Your task to perform on an android device: see tabs open on other devices in the chrome app Image 0: 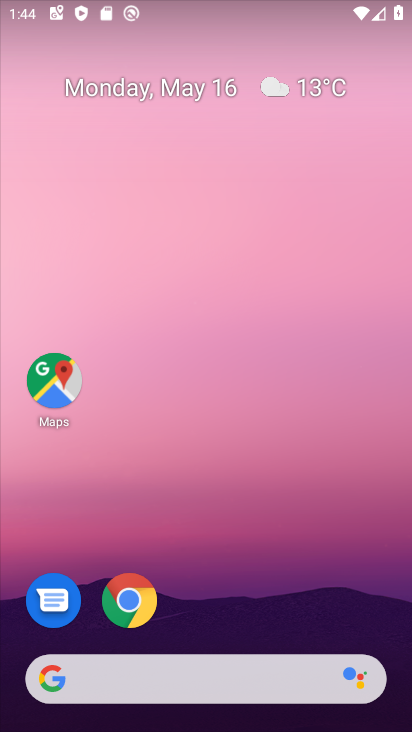
Step 0: click (148, 616)
Your task to perform on an android device: see tabs open on other devices in the chrome app Image 1: 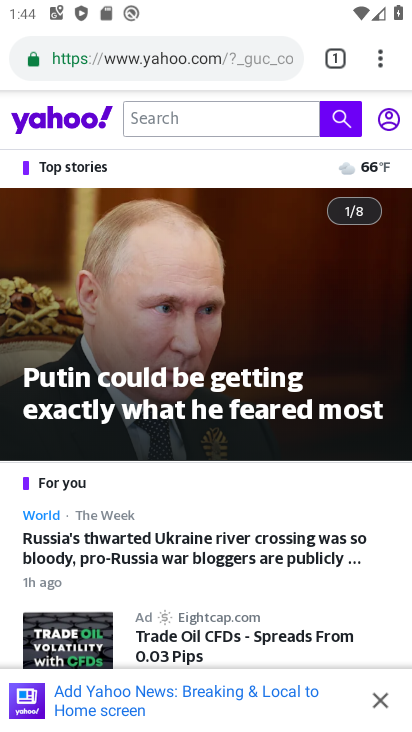
Step 1: click (387, 58)
Your task to perform on an android device: see tabs open on other devices in the chrome app Image 2: 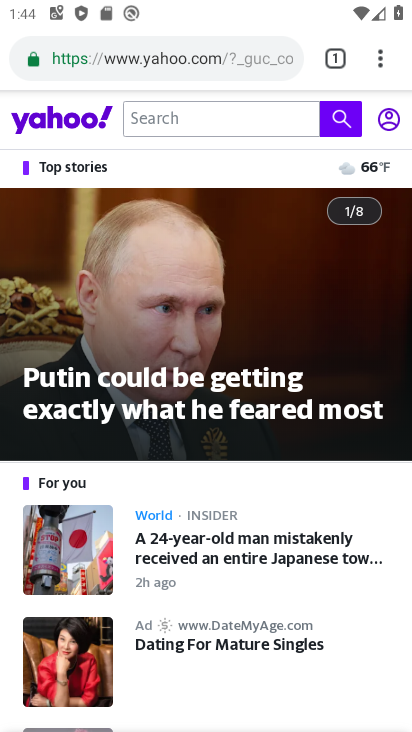
Step 2: click (383, 57)
Your task to perform on an android device: see tabs open on other devices in the chrome app Image 3: 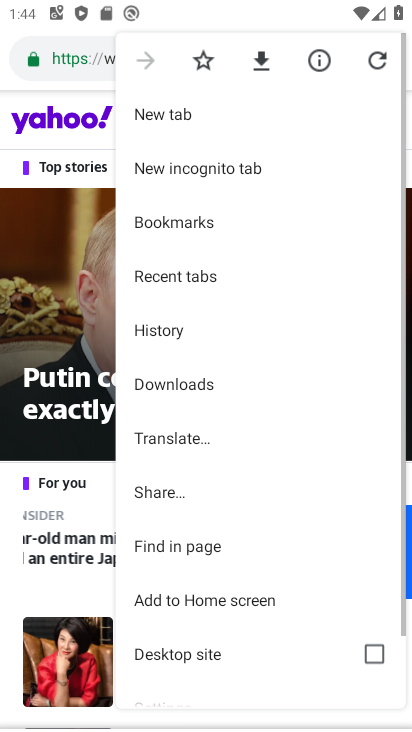
Step 3: drag from (195, 591) to (188, 177)
Your task to perform on an android device: see tabs open on other devices in the chrome app Image 4: 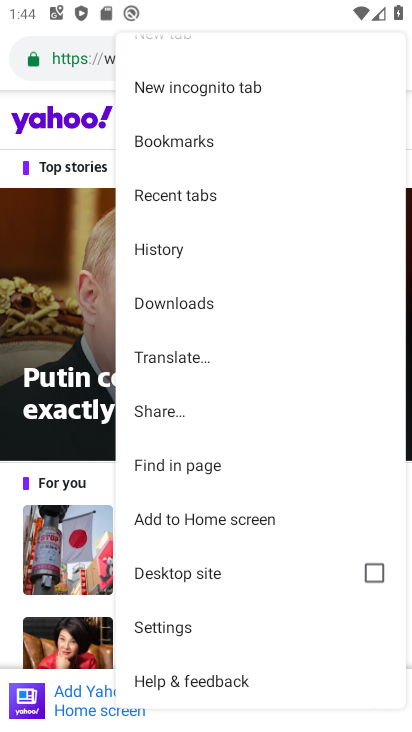
Step 4: click (188, 178)
Your task to perform on an android device: see tabs open on other devices in the chrome app Image 5: 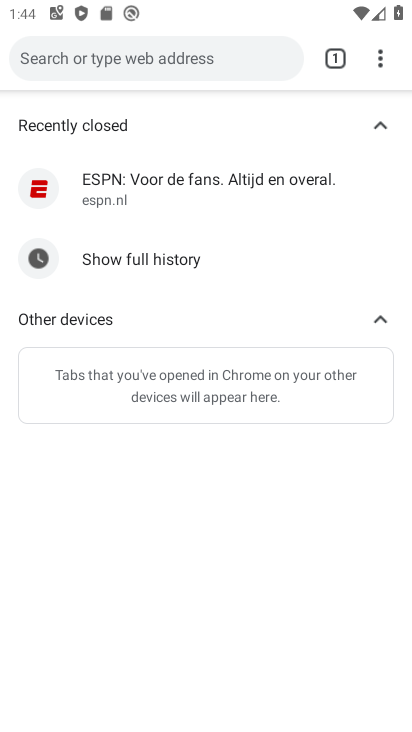
Step 5: task complete